Your task to perform on an android device: turn off improve location accuracy Image 0: 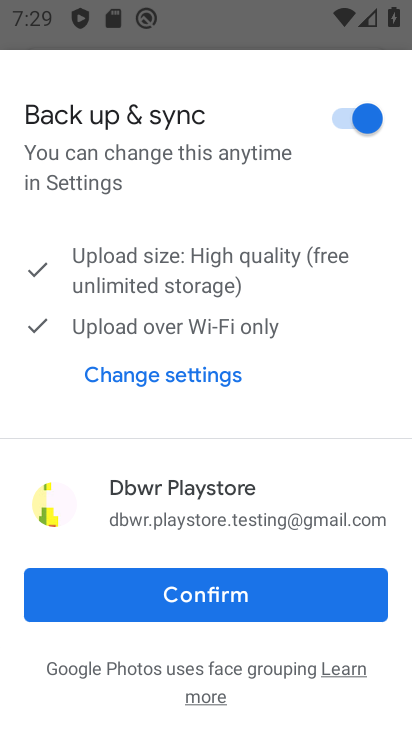
Step 0: press home button
Your task to perform on an android device: turn off improve location accuracy Image 1: 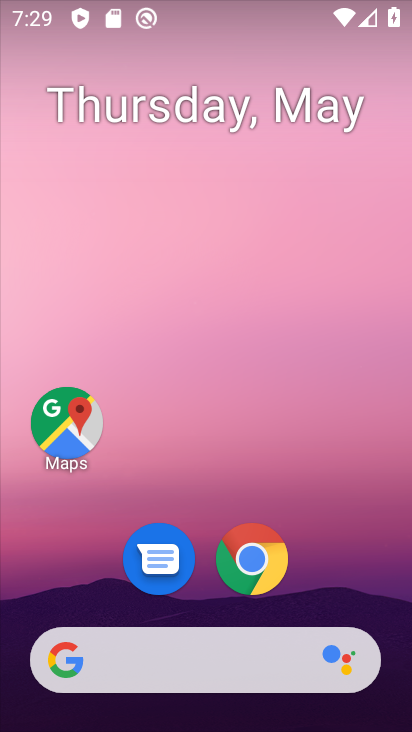
Step 1: drag from (317, 573) to (332, 249)
Your task to perform on an android device: turn off improve location accuracy Image 2: 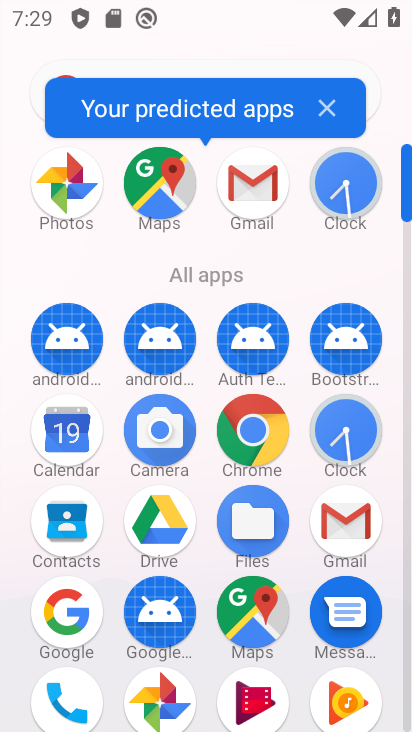
Step 2: drag from (259, 475) to (300, 214)
Your task to perform on an android device: turn off improve location accuracy Image 3: 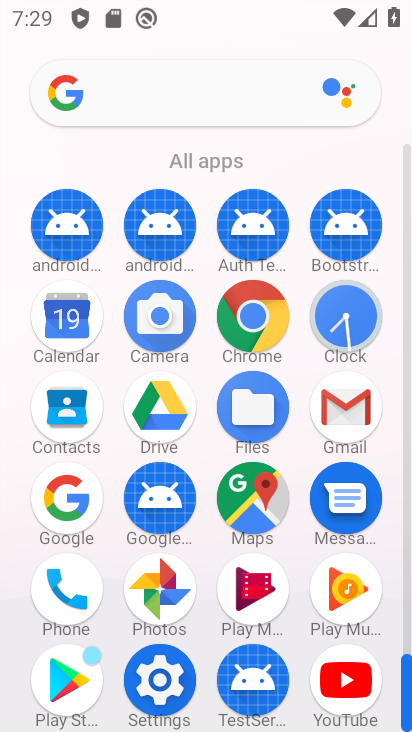
Step 3: click (164, 671)
Your task to perform on an android device: turn off improve location accuracy Image 4: 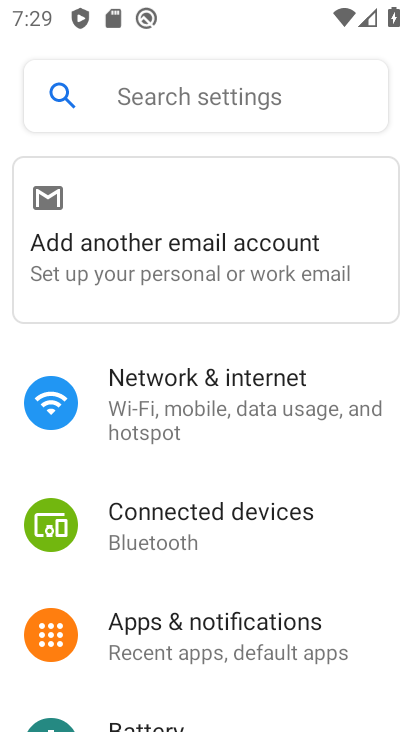
Step 4: drag from (238, 629) to (306, 124)
Your task to perform on an android device: turn off improve location accuracy Image 5: 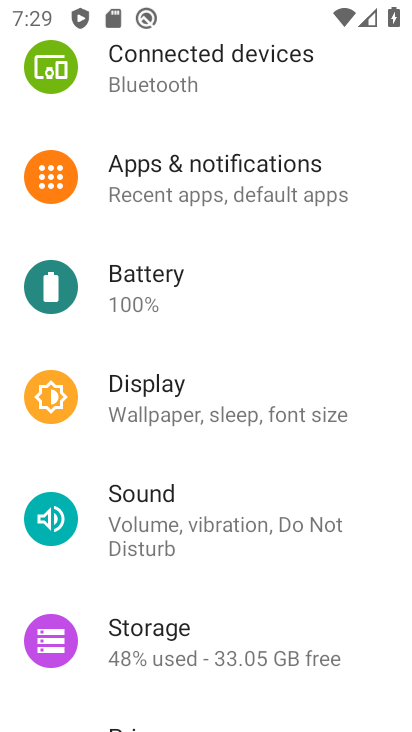
Step 5: drag from (171, 593) to (265, 98)
Your task to perform on an android device: turn off improve location accuracy Image 6: 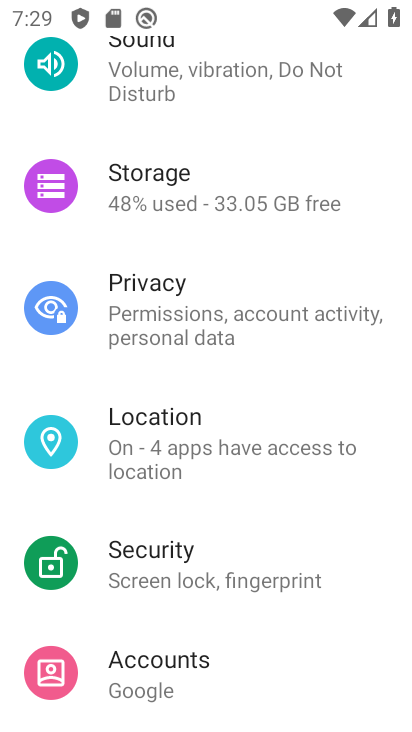
Step 6: click (167, 452)
Your task to perform on an android device: turn off improve location accuracy Image 7: 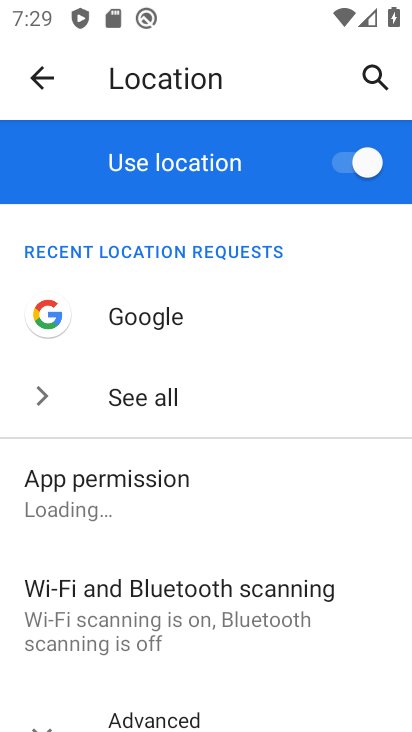
Step 7: drag from (169, 681) to (284, 314)
Your task to perform on an android device: turn off improve location accuracy Image 8: 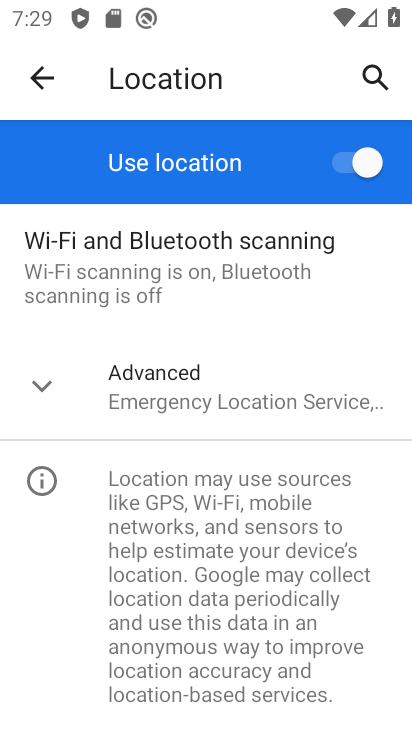
Step 8: click (191, 388)
Your task to perform on an android device: turn off improve location accuracy Image 9: 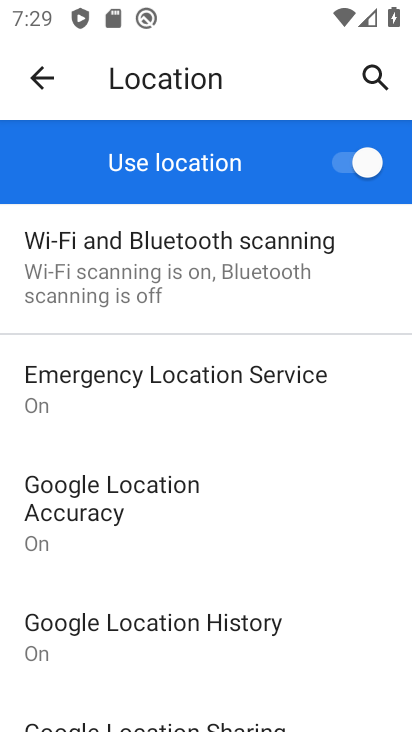
Step 9: click (125, 508)
Your task to perform on an android device: turn off improve location accuracy Image 10: 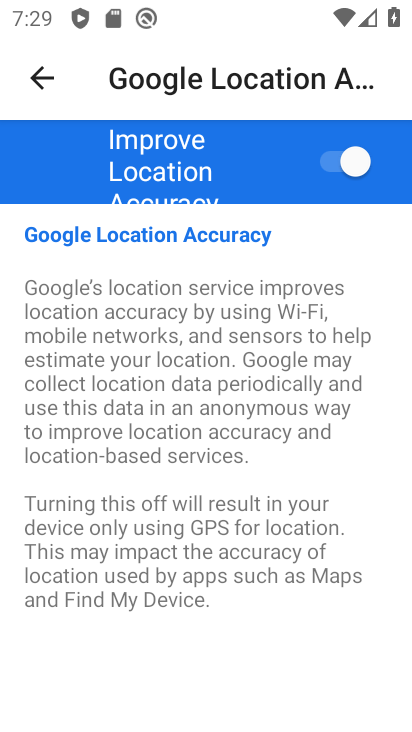
Step 10: click (349, 167)
Your task to perform on an android device: turn off improve location accuracy Image 11: 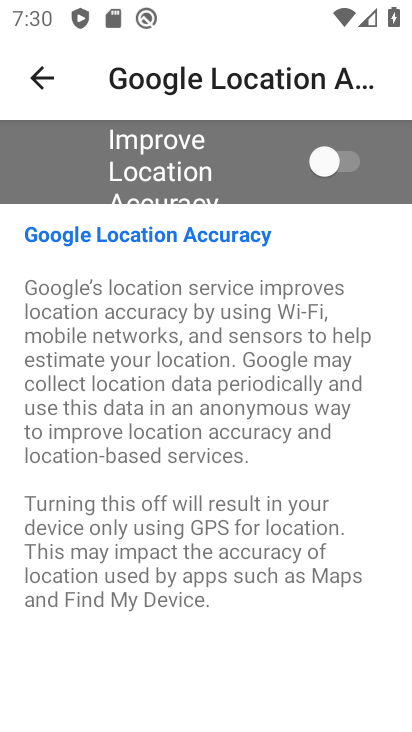
Step 11: task complete